Your task to perform on an android device: turn on javascript in the chrome app Image 0: 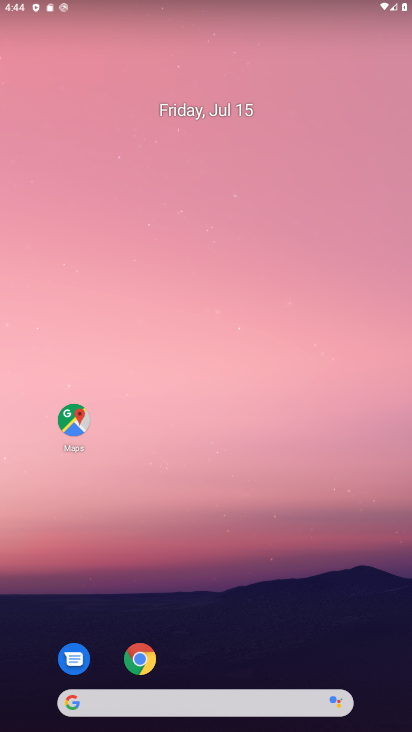
Step 0: click (139, 653)
Your task to perform on an android device: turn on javascript in the chrome app Image 1: 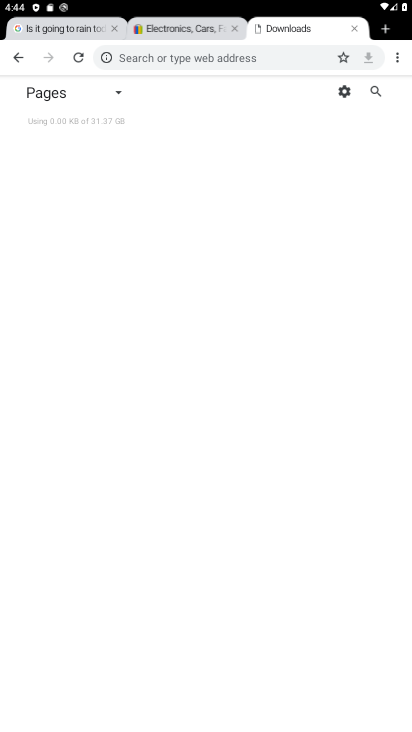
Step 1: click (399, 57)
Your task to perform on an android device: turn on javascript in the chrome app Image 2: 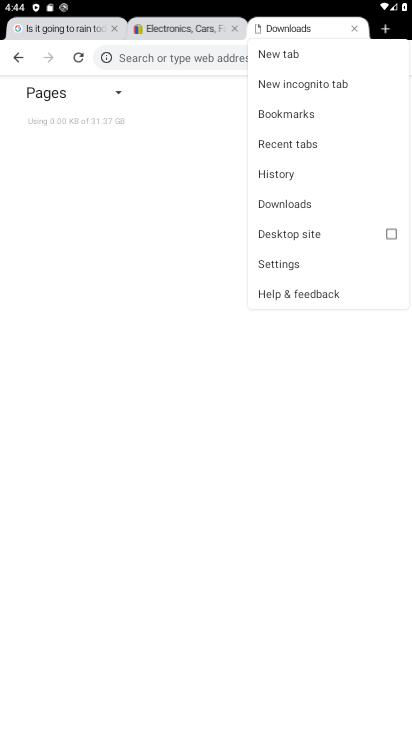
Step 2: click (315, 257)
Your task to perform on an android device: turn on javascript in the chrome app Image 3: 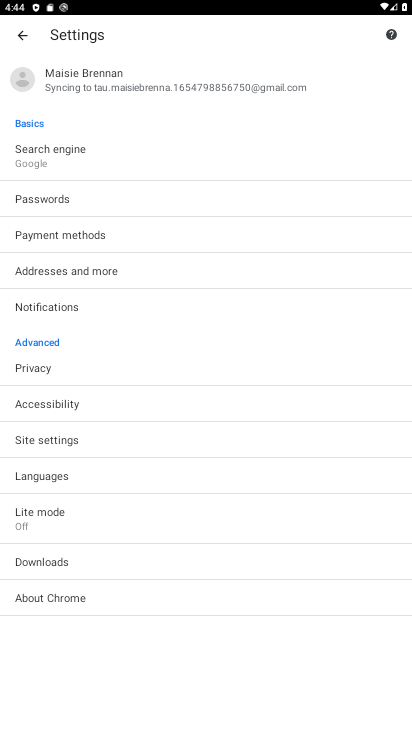
Step 3: click (67, 443)
Your task to perform on an android device: turn on javascript in the chrome app Image 4: 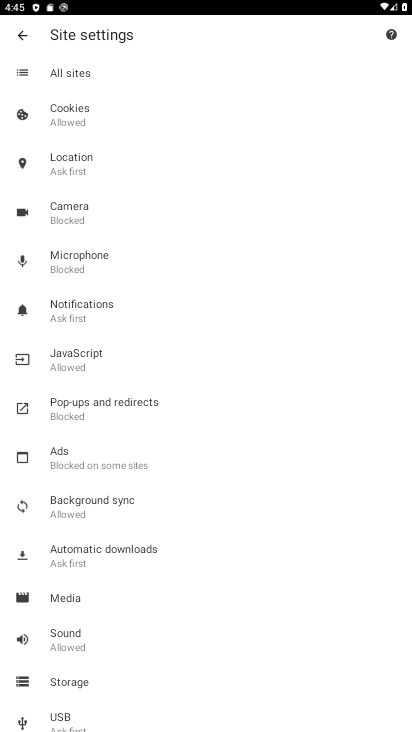
Step 4: click (122, 365)
Your task to perform on an android device: turn on javascript in the chrome app Image 5: 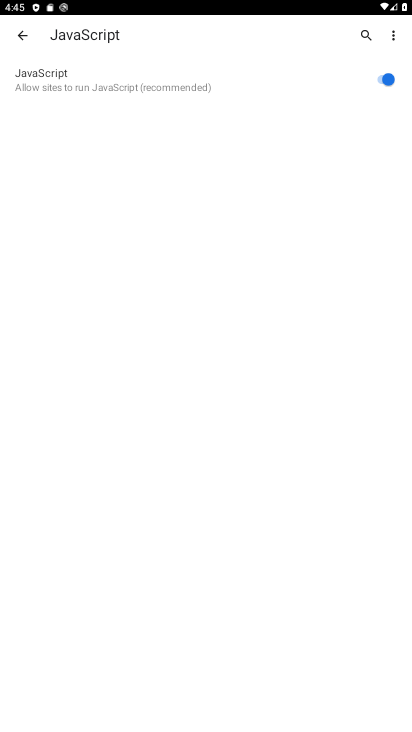
Step 5: task complete